Your task to perform on an android device: Open Yahoo.com Image 0: 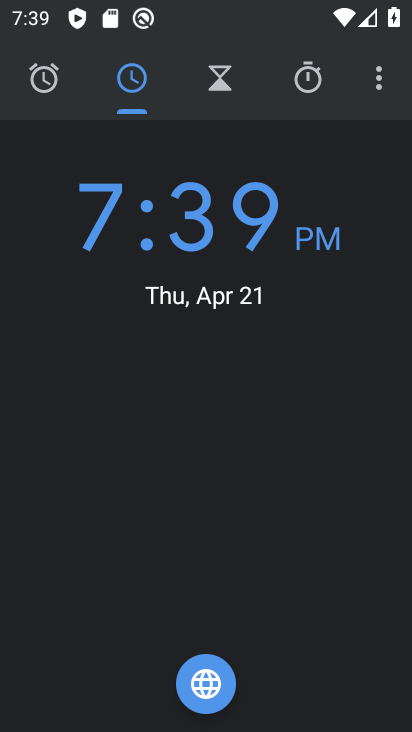
Step 0: press home button
Your task to perform on an android device: Open Yahoo.com Image 1: 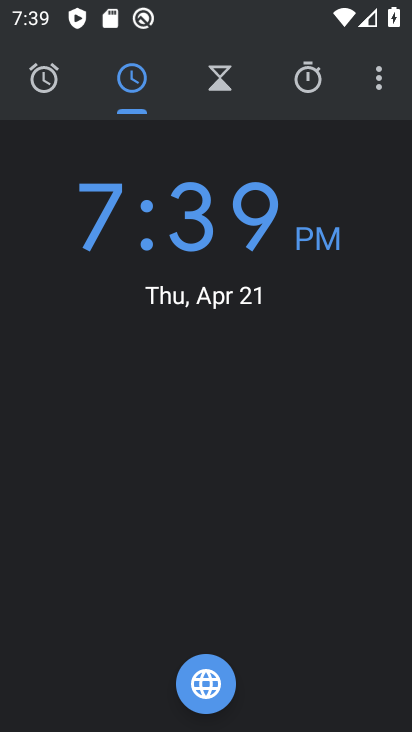
Step 1: press home button
Your task to perform on an android device: Open Yahoo.com Image 2: 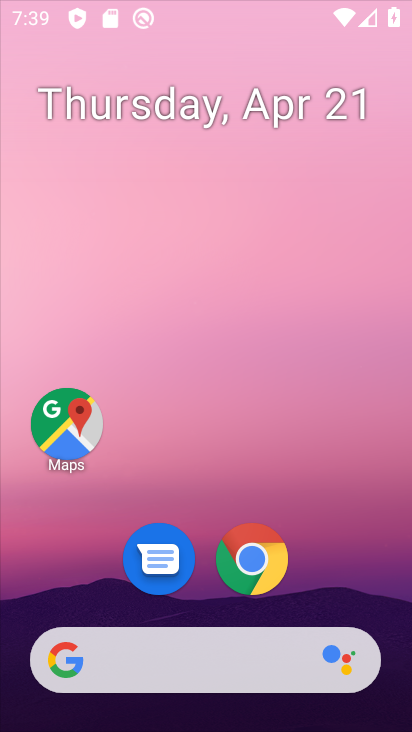
Step 2: press home button
Your task to perform on an android device: Open Yahoo.com Image 3: 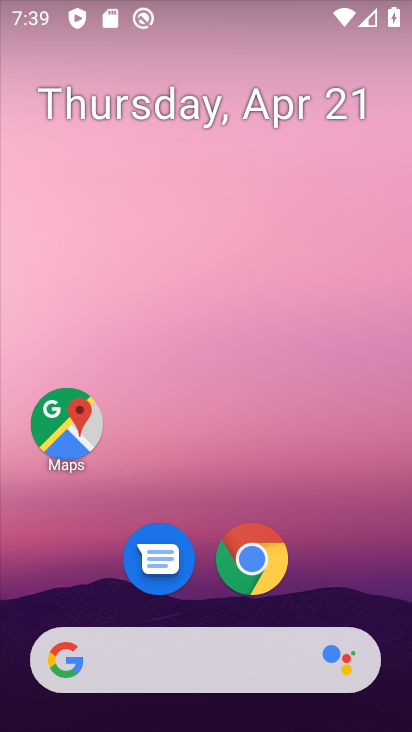
Step 3: press home button
Your task to perform on an android device: Open Yahoo.com Image 4: 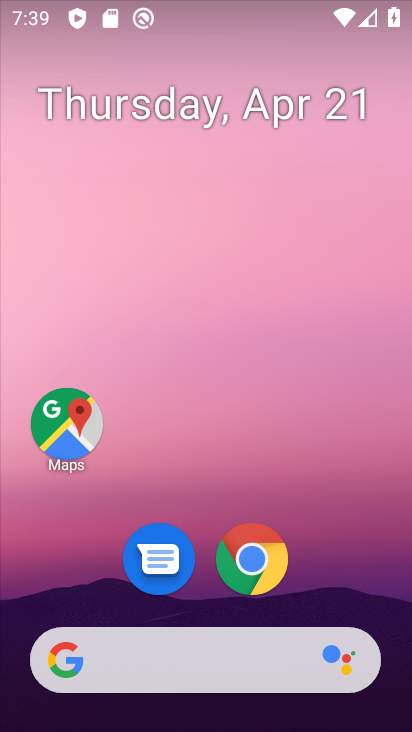
Step 4: drag from (256, 659) to (258, 12)
Your task to perform on an android device: Open Yahoo.com Image 5: 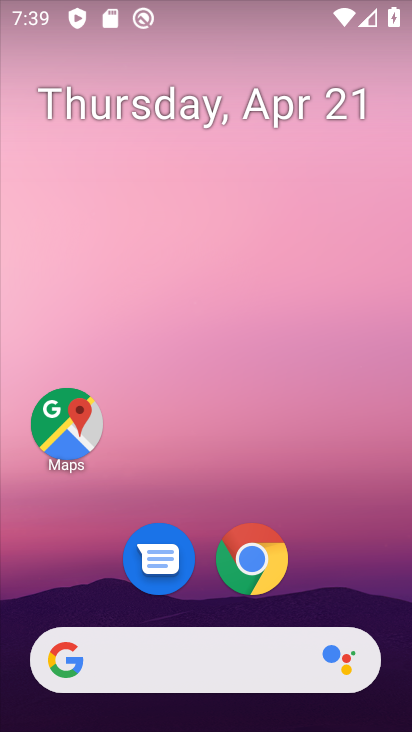
Step 5: click (120, 51)
Your task to perform on an android device: Open Yahoo.com Image 6: 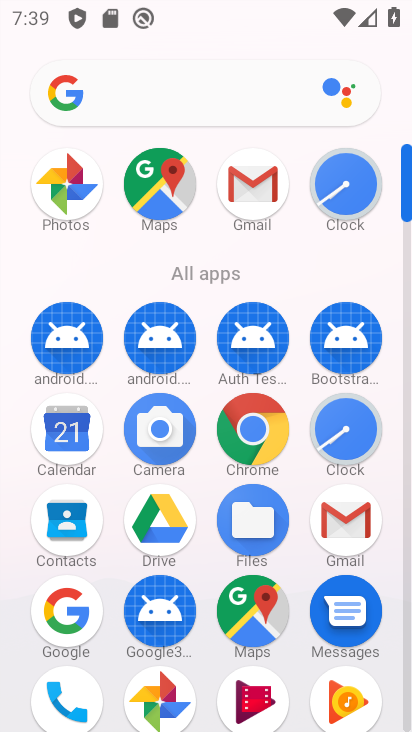
Step 6: click (190, 170)
Your task to perform on an android device: Open Yahoo.com Image 7: 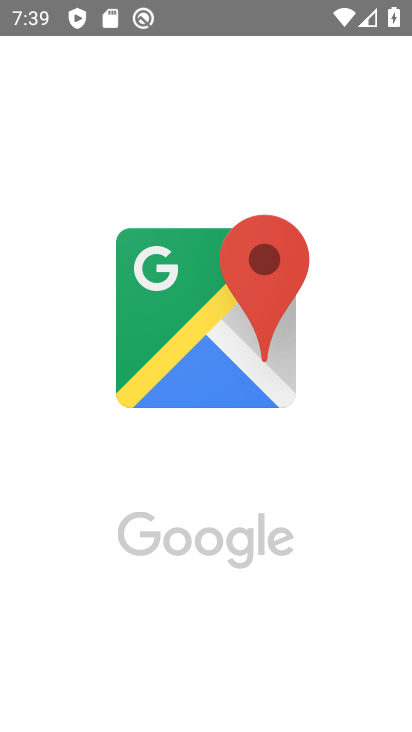
Step 7: press home button
Your task to perform on an android device: Open Yahoo.com Image 8: 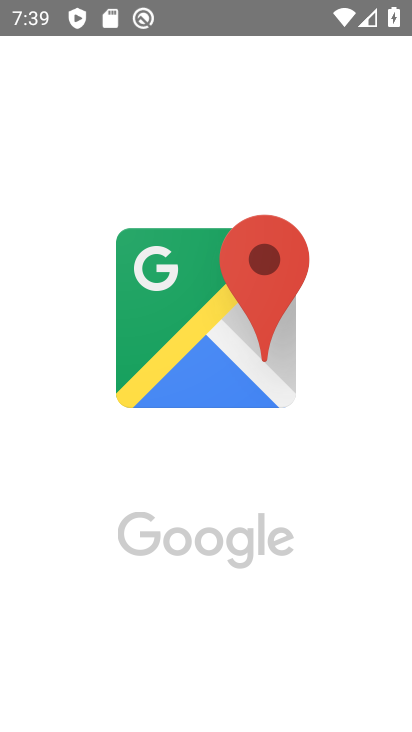
Step 8: press home button
Your task to perform on an android device: Open Yahoo.com Image 9: 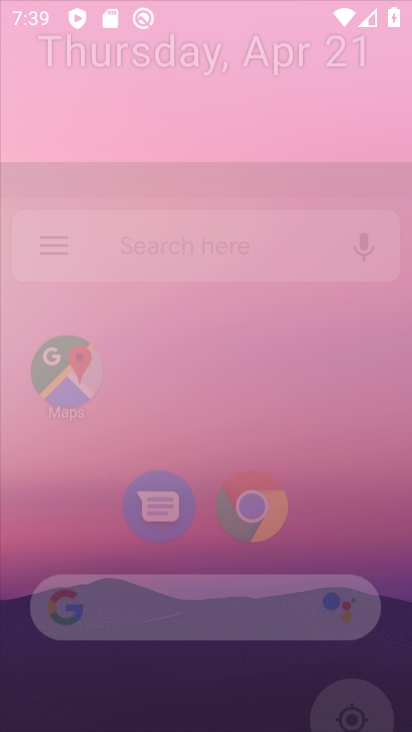
Step 9: press home button
Your task to perform on an android device: Open Yahoo.com Image 10: 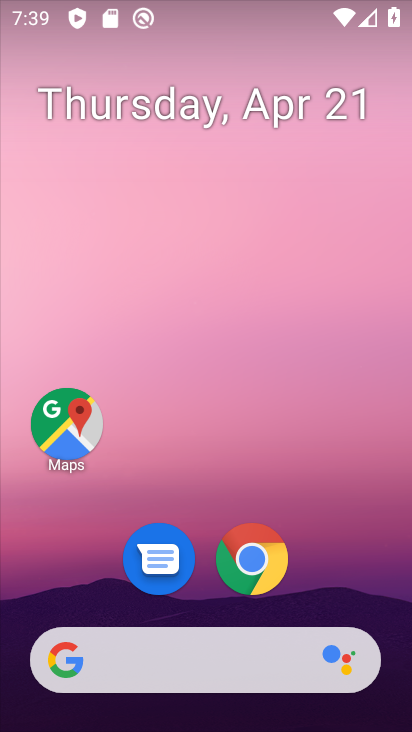
Step 10: press home button
Your task to perform on an android device: Open Yahoo.com Image 11: 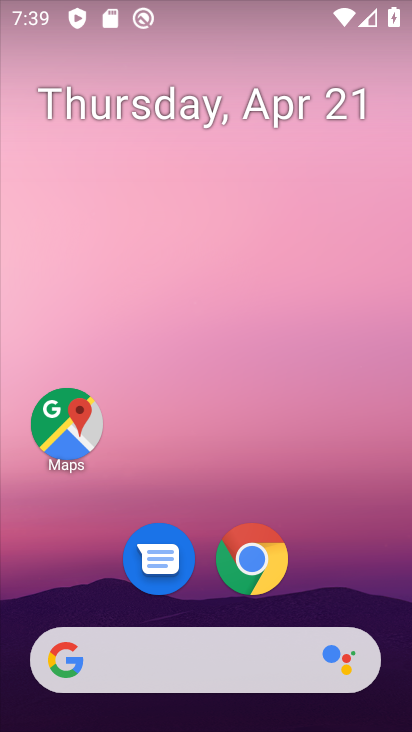
Step 11: drag from (297, 629) to (209, 29)
Your task to perform on an android device: Open Yahoo.com Image 12: 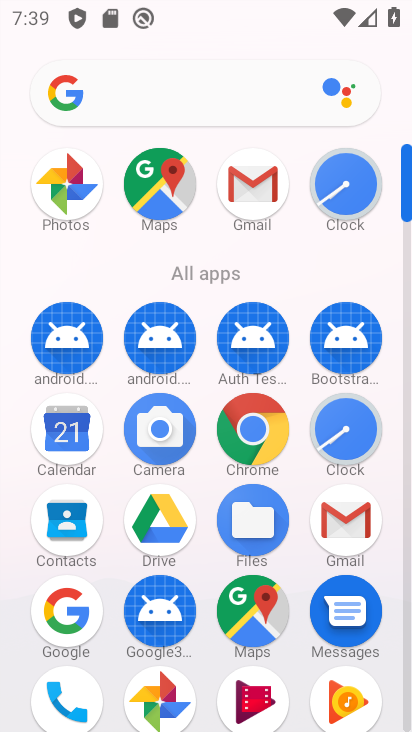
Step 12: drag from (291, 590) to (239, 200)
Your task to perform on an android device: Open Yahoo.com Image 13: 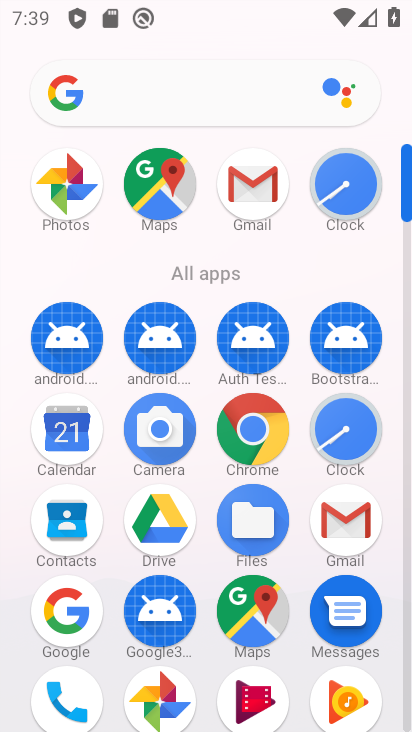
Step 13: click (250, 434)
Your task to perform on an android device: Open Yahoo.com Image 14: 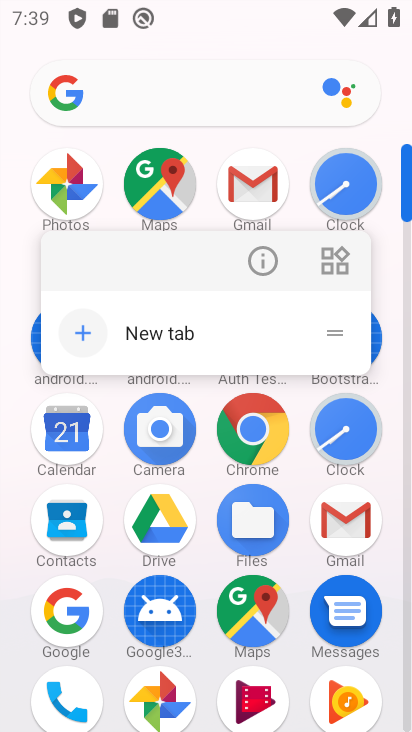
Step 14: click (244, 425)
Your task to perform on an android device: Open Yahoo.com Image 15: 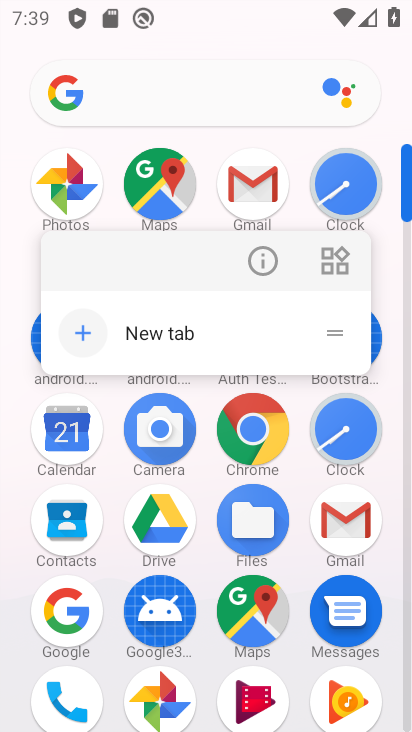
Step 15: drag from (104, 329) to (141, 335)
Your task to perform on an android device: Open Yahoo.com Image 16: 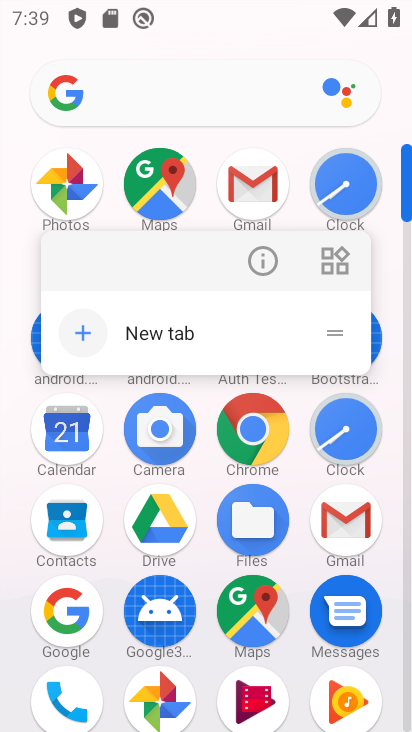
Step 16: click (246, 430)
Your task to perform on an android device: Open Yahoo.com Image 17: 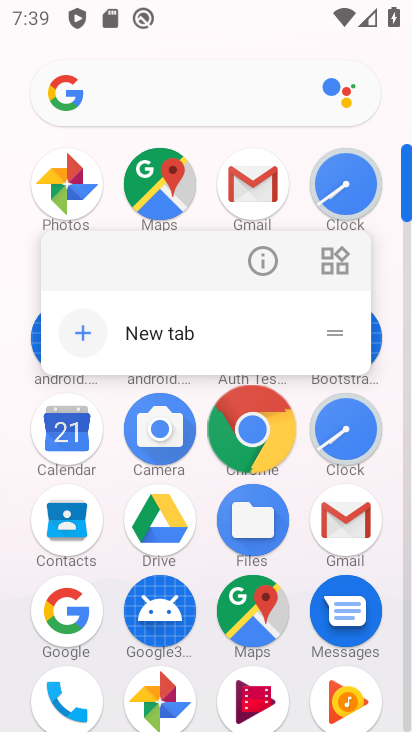
Step 17: click (249, 427)
Your task to perform on an android device: Open Yahoo.com Image 18: 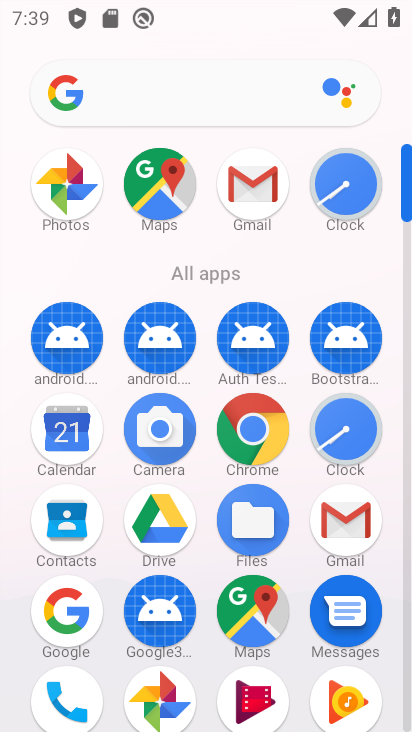
Step 18: click (250, 426)
Your task to perform on an android device: Open Yahoo.com Image 19: 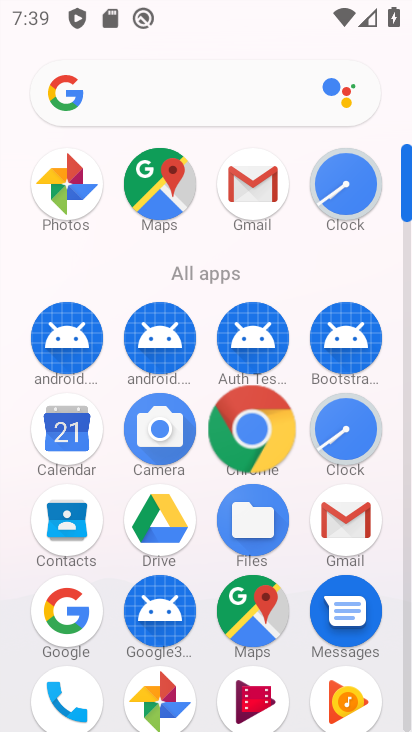
Step 19: click (250, 426)
Your task to perform on an android device: Open Yahoo.com Image 20: 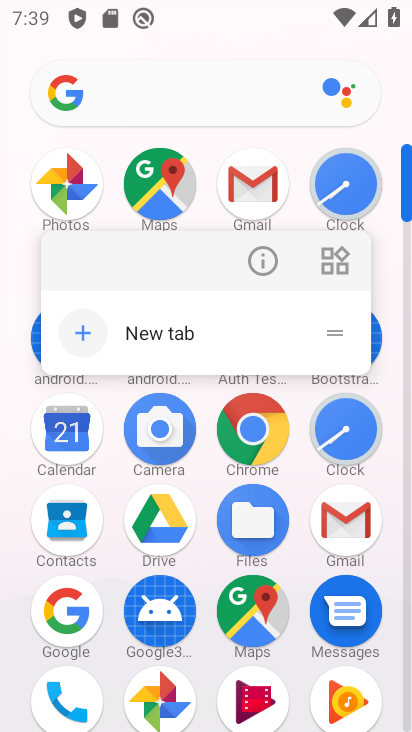
Step 20: click (250, 426)
Your task to perform on an android device: Open Yahoo.com Image 21: 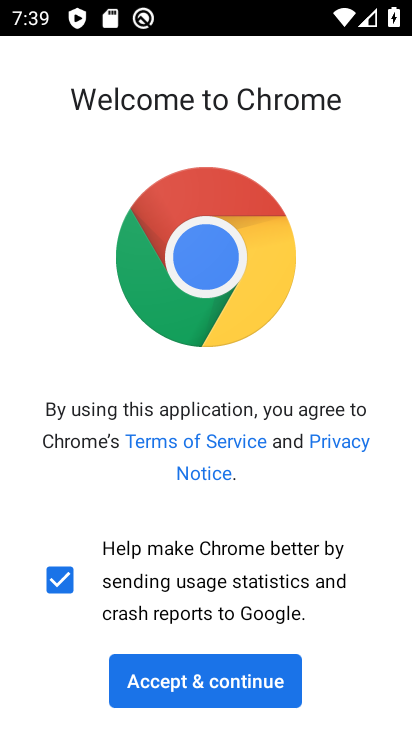
Step 21: click (200, 673)
Your task to perform on an android device: Open Yahoo.com Image 22: 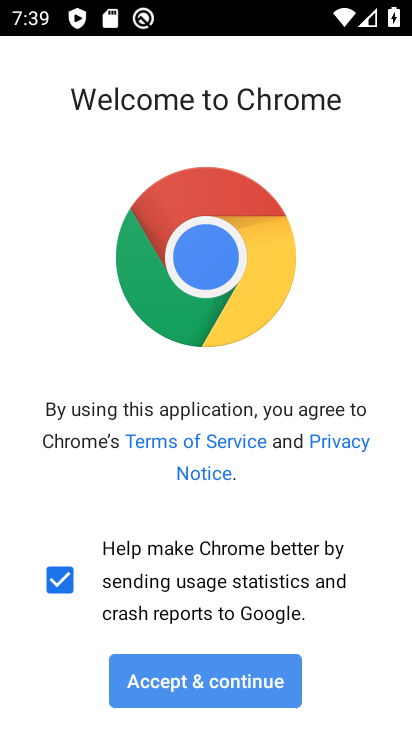
Step 22: click (211, 686)
Your task to perform on an android device: Open Yahoo.com Image 23: 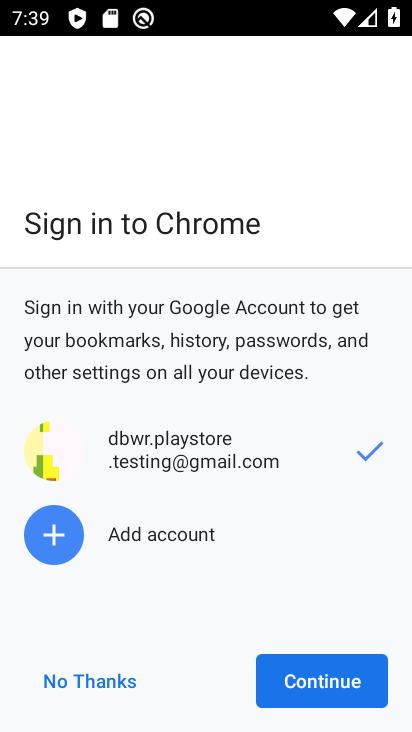
Step 23: click (234, 674)
Your task to perform on an android device: Open Yahoo.com Image 24: 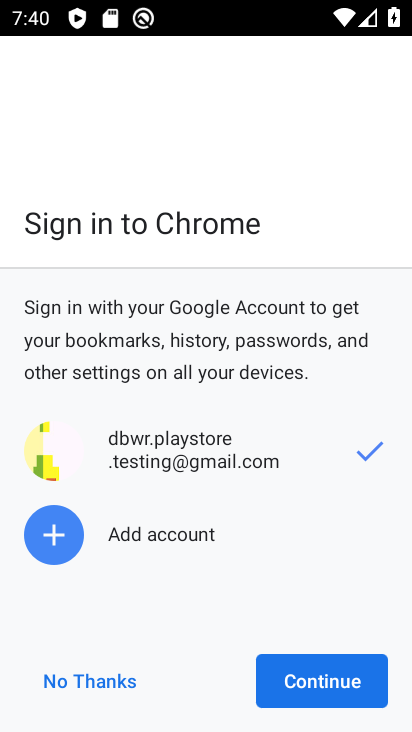
Step 24: click (329, 671)
Your task to perform on an android device: Open Yahoo.com Image 25: 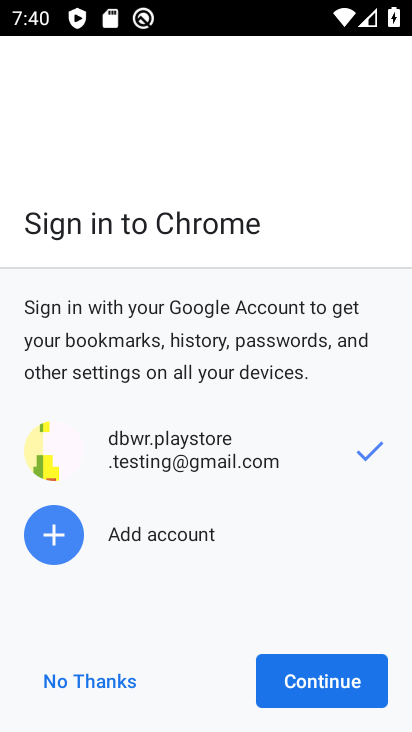
Step 25: click (329, 672)
Your task to perform on an android device: Open Yahoo.com Image 26: 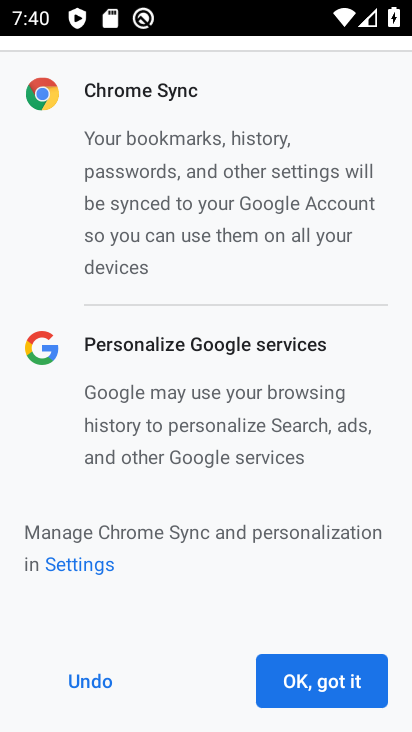
Step 26: click (331, 670)
Your task to perform on an android device: Open Yahoo.com Image 27: 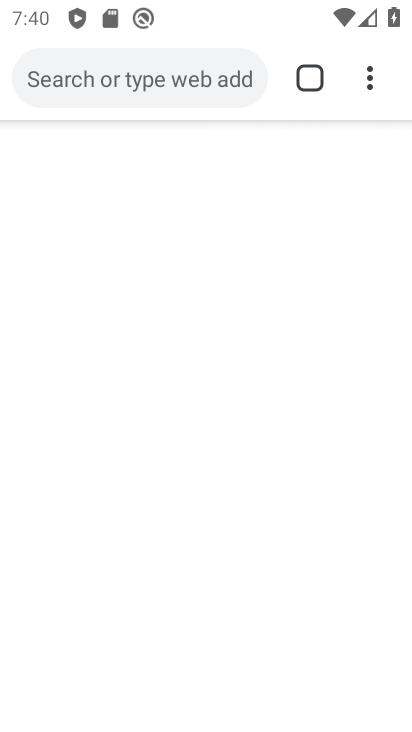
Step 27: click (330, 673)
Your task to perform on an android device: Open Yahoo.com Image 28: 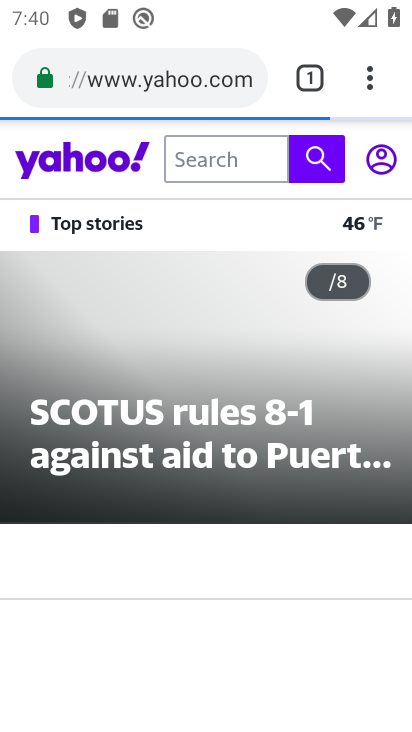
Step 28: task complete